Your task to perform on an android device: see sites visited before in the chrome app Image 0: 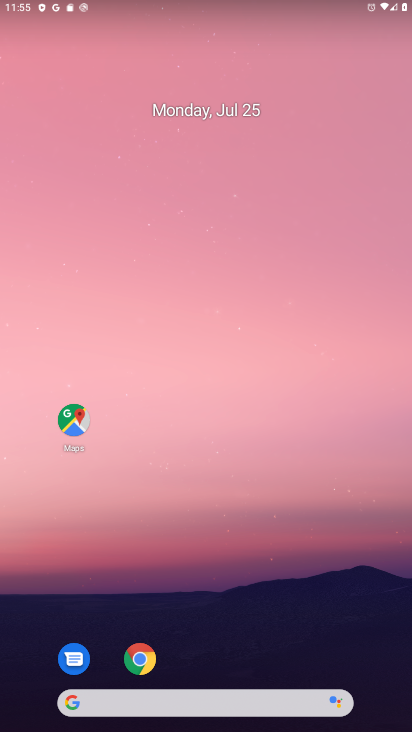
Step 0: click (138, 660)
Your task to perform on an android device: see sites visited before in the chrome app Image 1: 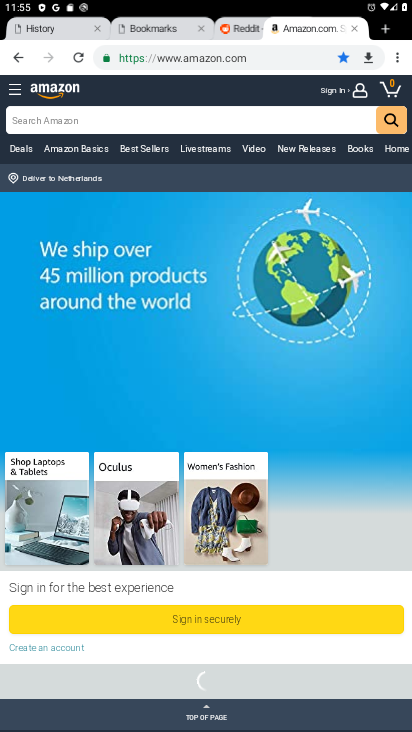
Step 1: click (395, 51)
Your task to perform on an android device: see sites visited before in the chrome app Image 2: 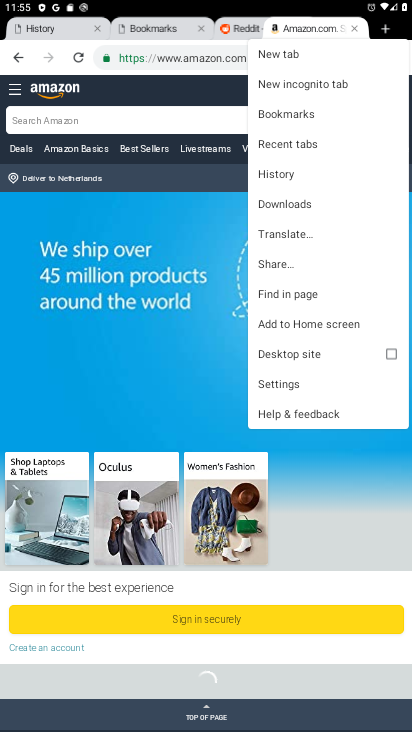
Step 2: click (279, 172)
Your task to perform on an android device: see sites visited before in the chrome app Image 3: 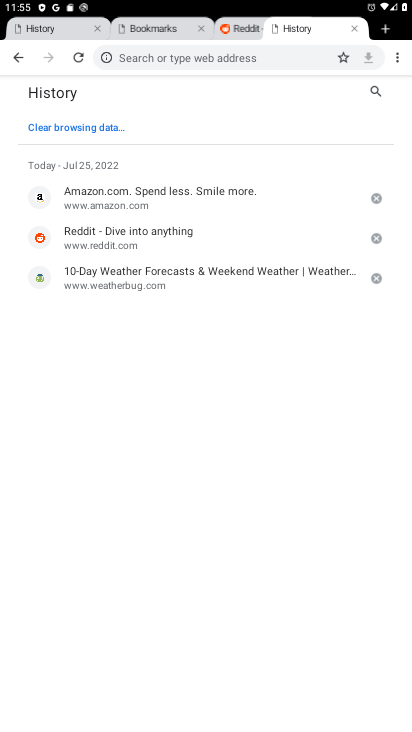
Step 3: task complete